Your task to perform on an android device: toggle pop-ups in chrome Image 0: 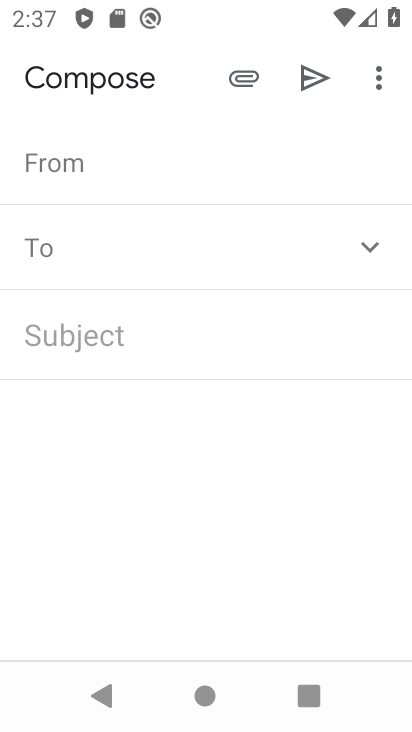
Step 0: drag from (167, 579) to (313, 211)
Your task to perform on an android device: toggle pop-ups in chrome Image 1: 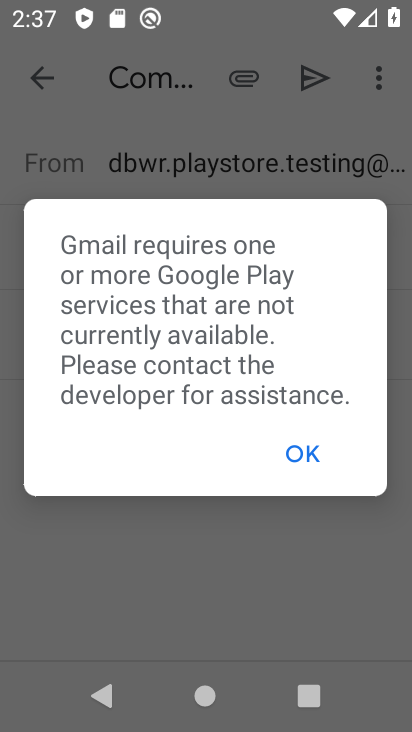
Step 1: press back button
Your task to perform on an android device: toggle pop-ups in chrome Image 2: 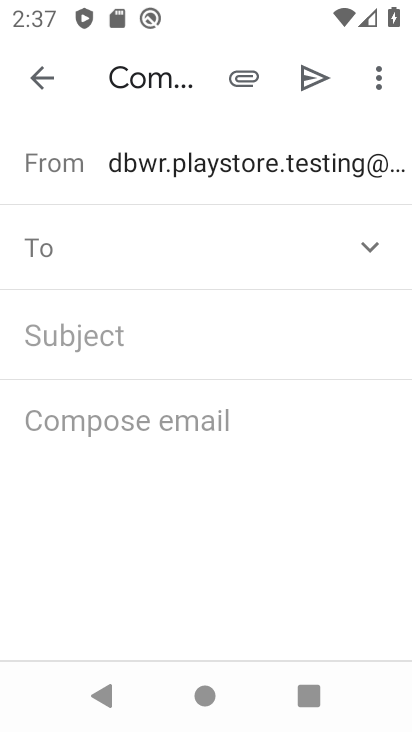
Step 2: press back button
Your task to perform on an android device: toggle pop-ups in chrome Image 3: 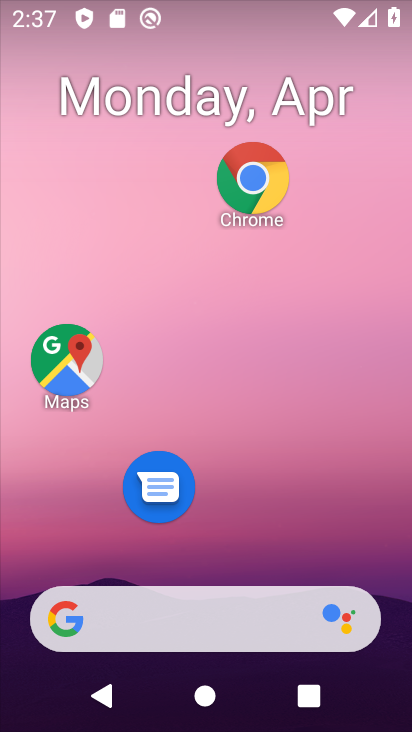
Step 3: click (264, 162)
Your task to perform on an android device: toggle pop-ups in chrome Image 4: 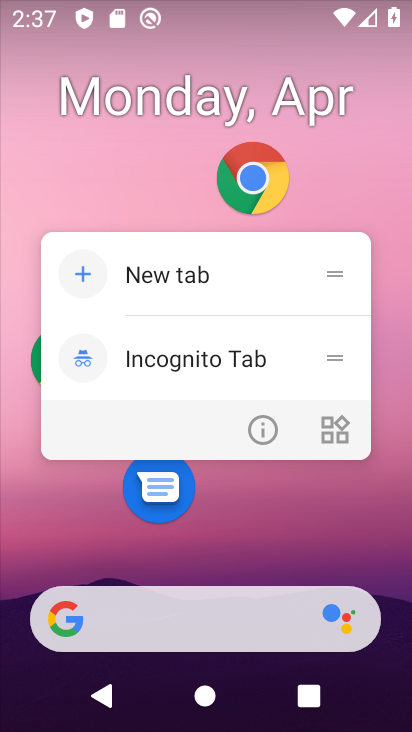
Step 4: click (264, 162)
Your task to perform on an android device: toggle pop-ups in chrome Image 5: 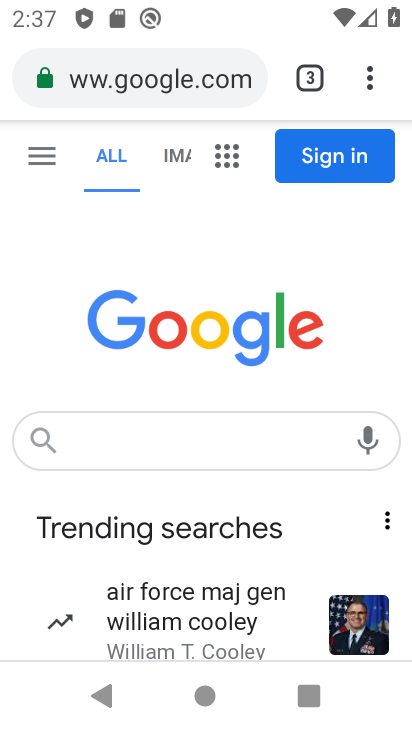
Step 5: click (366, 71)
Your task to perform on an android device: toggle pop-ups in chrome Image 6: 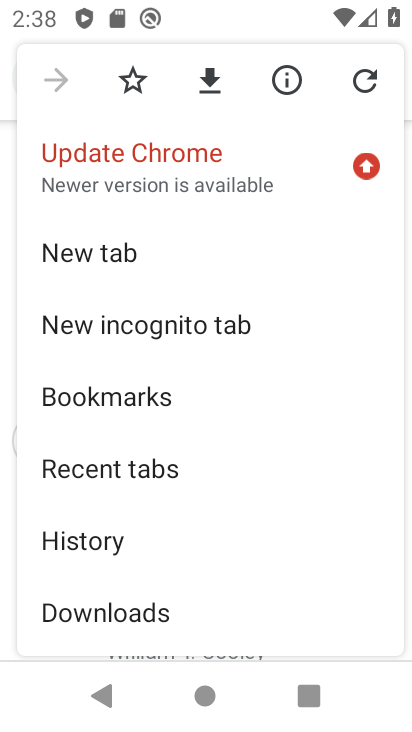
Step 6: drag from (85, 517) to (219, 248)
Your task to perform on an android device: toggle pop-ups in chrome Image 7: 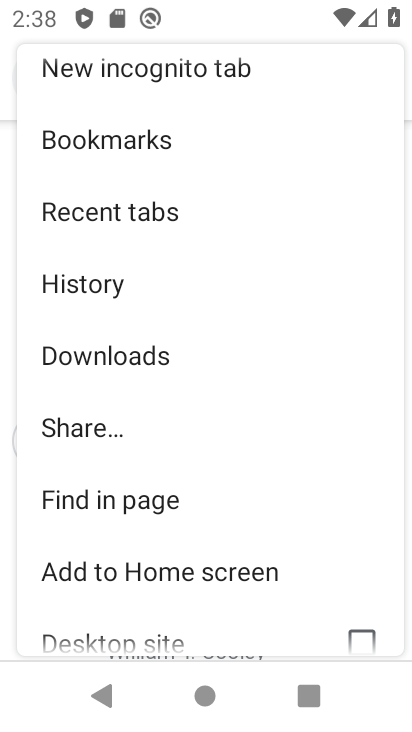
Step 7: drag from (91, 508) to (219, 202)
Your task to perform on an android device: toggle pop-ups in chrome Image 8: 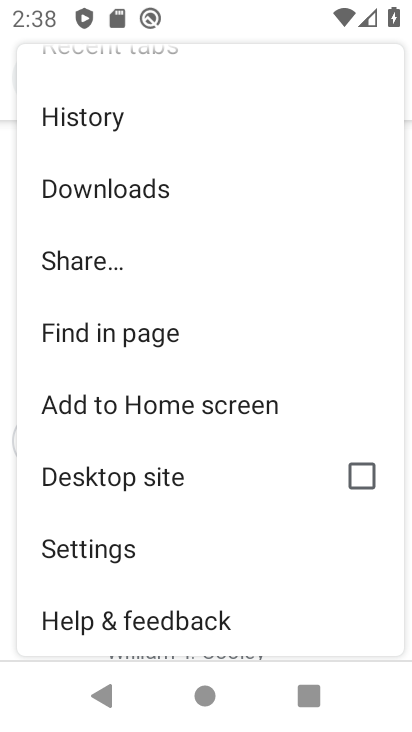
Step 8: click (71, 559)
Your task to perform on an android device: toggle pop-ups in chrome Image 9: 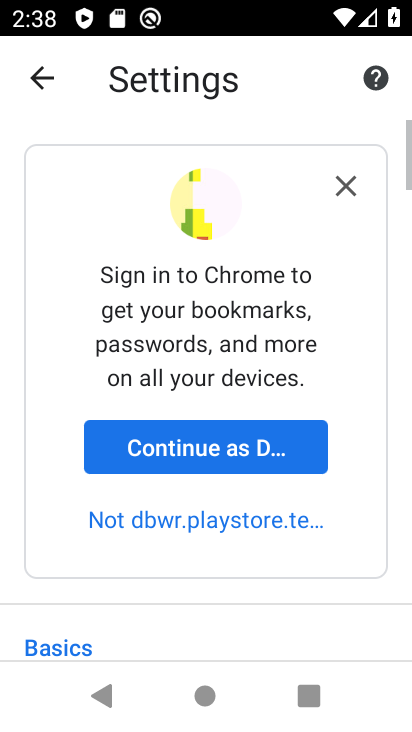
Step 9: drag from (71, 559) to (162, 201)
Your task to perform on an android device: toggle pop-ups in chrome Image 10: 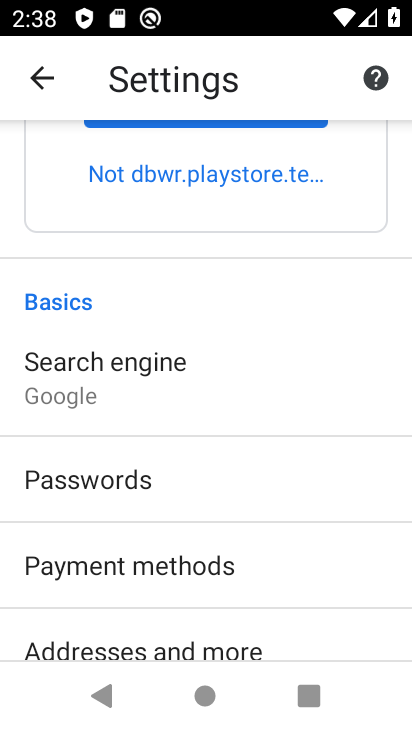
Step 10: drag from (83, 612) to (258, 109)
Your task to perform on an android device: toggle pop-ups in chrome Image 11: 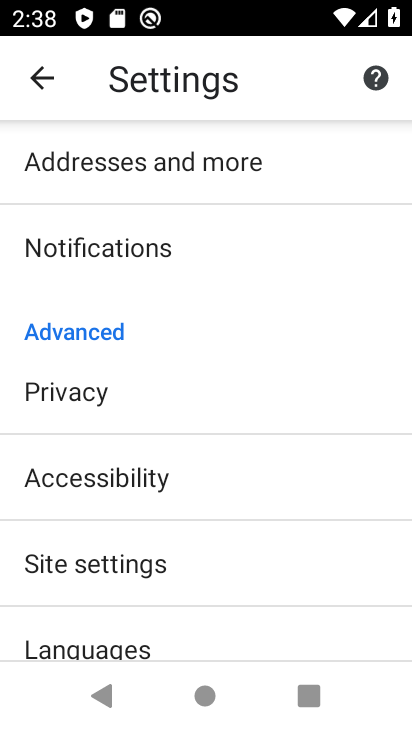
Step 11: click (81, 566)
Your task to perform on an android device: toggle pop-ups in chrome Image 12: 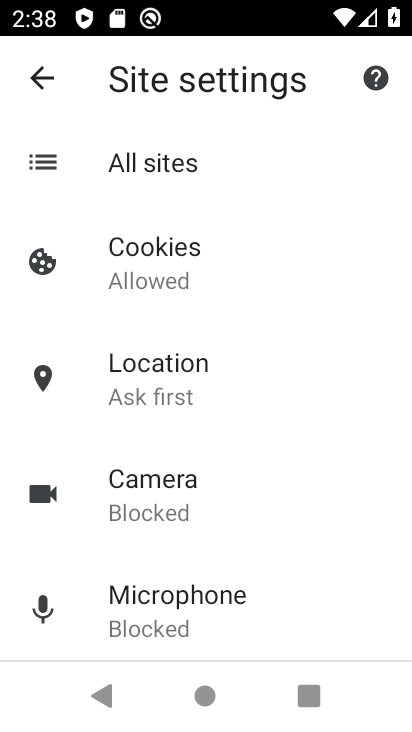
Step 12: drag from (143, 529) to (350, 115)
Your task to perform on an android device: toggle pop-ups in chrome Image 13: 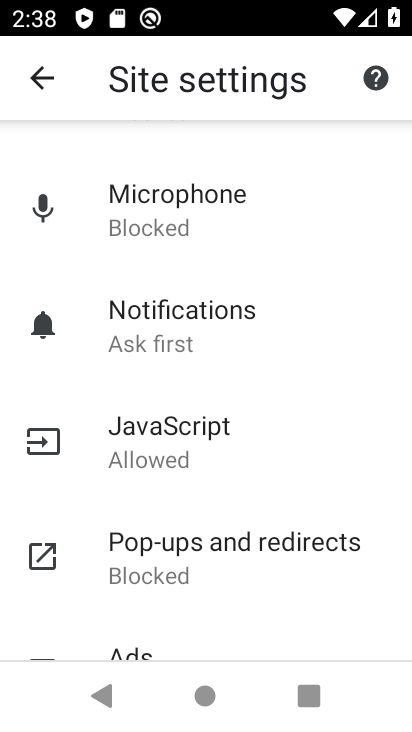
Step 13: click (158, 548)
Your task to perform on an android device: toggle pop-ups in chrome Image 14: 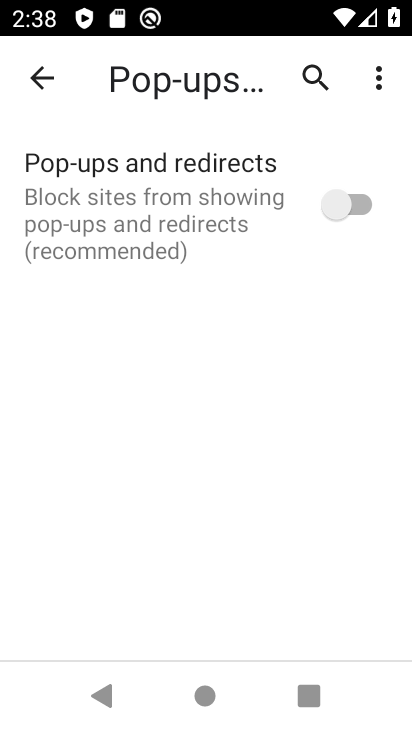
Step 14: click (362, 202)
Your task to perform on an android device: toggle pop-ups in chrome Image 15: 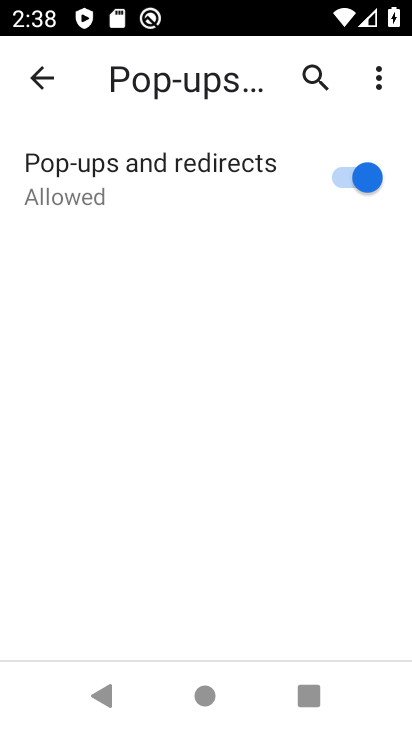
Step 15: task complete